Your task to perform on an android device: check google app version Image 0: 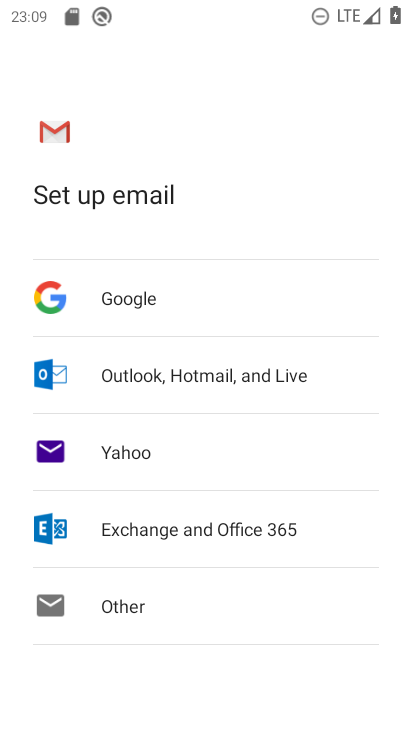
Step 0: press home button
Your task to perform on an android device: check google app version Image 1: 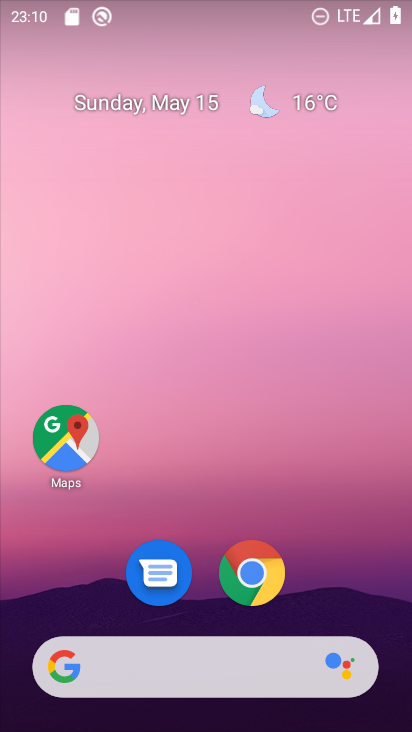
Step 1: drag from (393, 600) to (195, 179)
Your task to perform on an android device: check google app version Image 2: 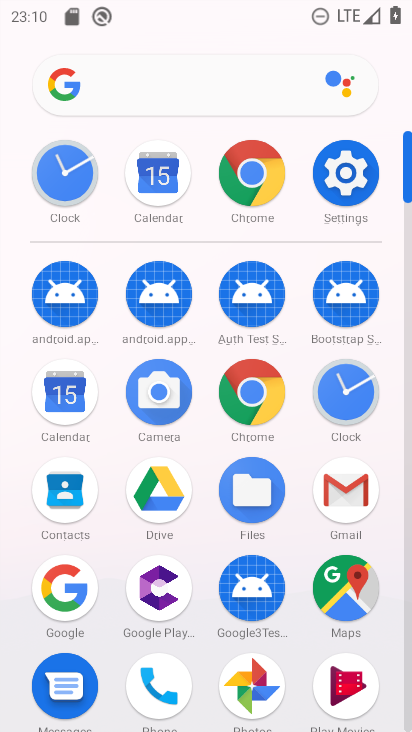
Step 2: click (61, 584)
Your task to perform on an android device: check google app version Image 3: 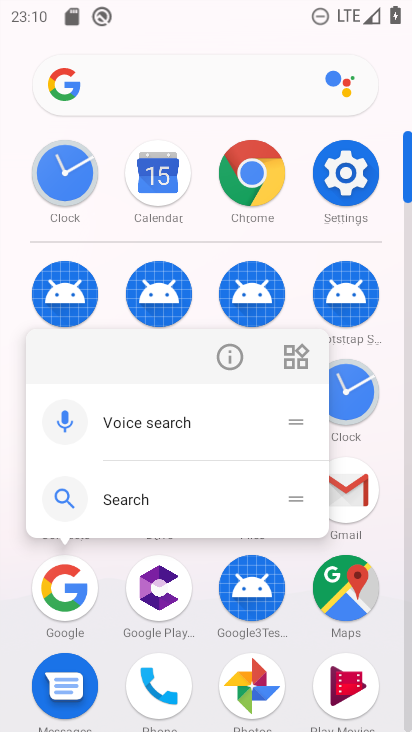
Step 3: click (224, 373)
Your task to perform on an android device: check google app version Image 4: 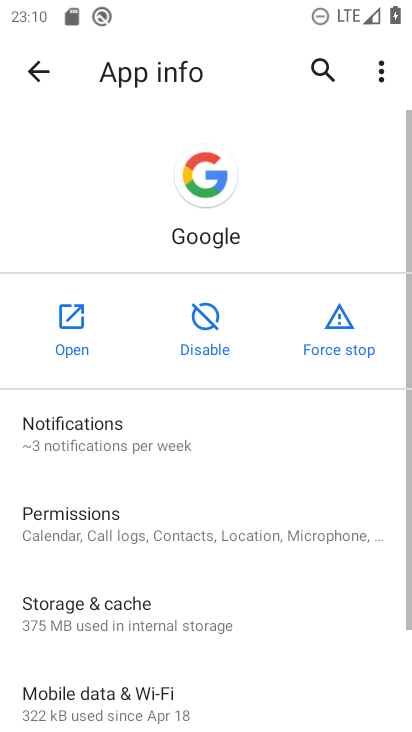
Step 4: drag from (255, 695) to (224, 286)
Your task to perform on an android device: check google app version Image 5: 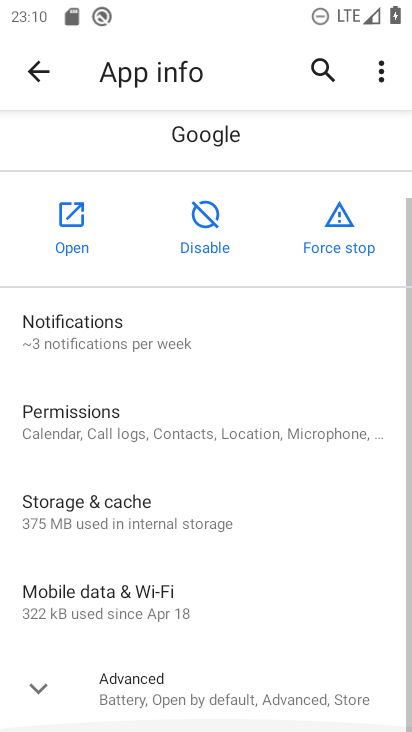
Step 5: drag from (306, 658) to (294, 299)
Your task to perform on an android device: check google app version Image 6: 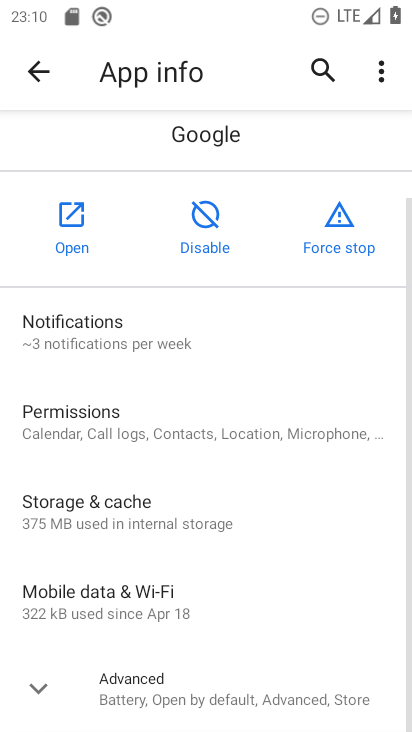
Step 6: click (248, 675)
Your task to perform on an android device: check google app version Image 7: 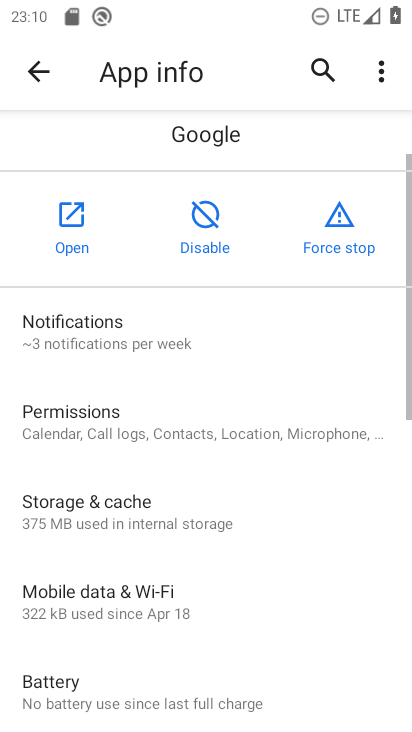
Step 7: task complete